Your task to perform on an android device: Open display settings Image 0: 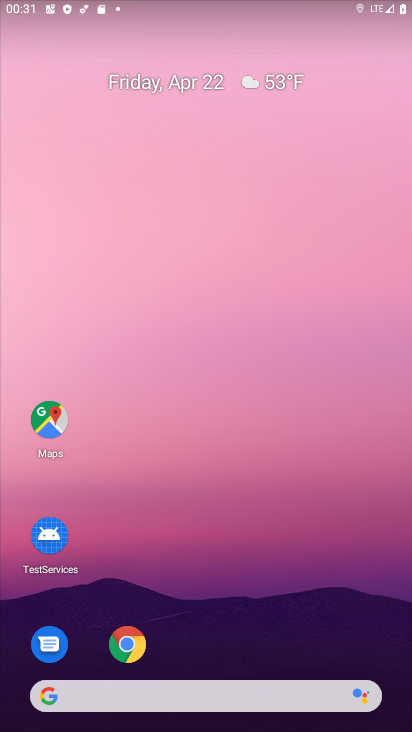
Step 0: drag from (209, 617) to (190, 126)
Your task to perform on an android device: Open display settings Image 1: 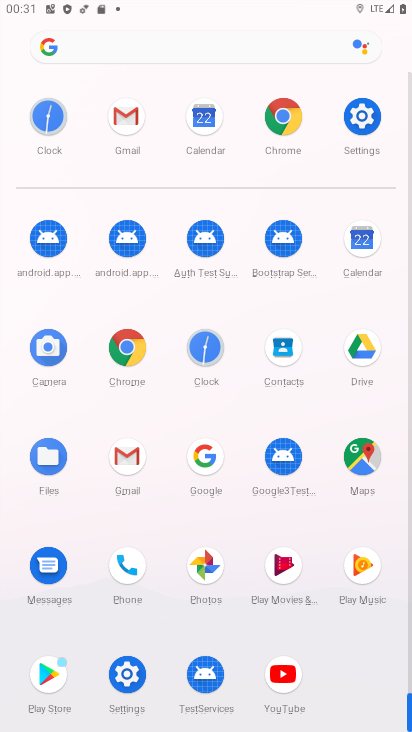
Step 1: click (368, 106)
Your task to perform on an android device: Open display settings Image 2: 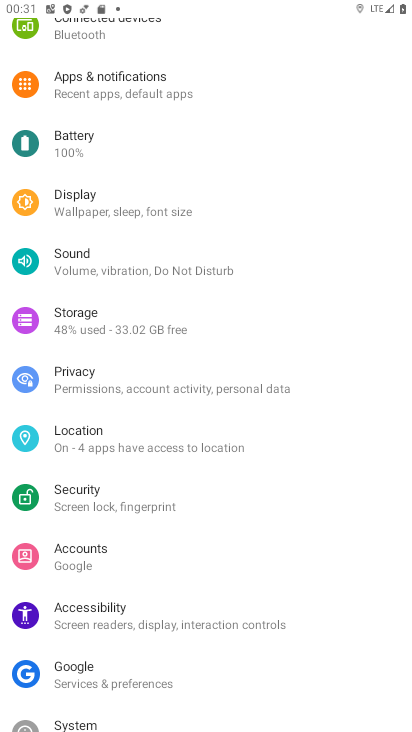
Step 2: drag from (136, 141) to (124, 296)
Your task to perform on an android device: Open display settings Image 3: 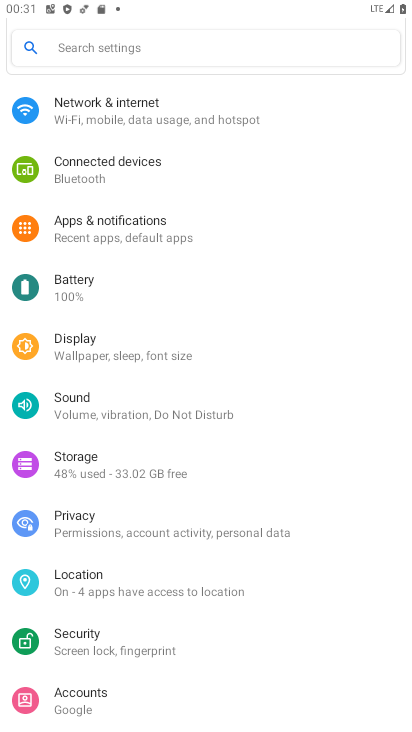
Step 3: click (88, 342)
Your task to perform on an android device: Open display settings Image 4: 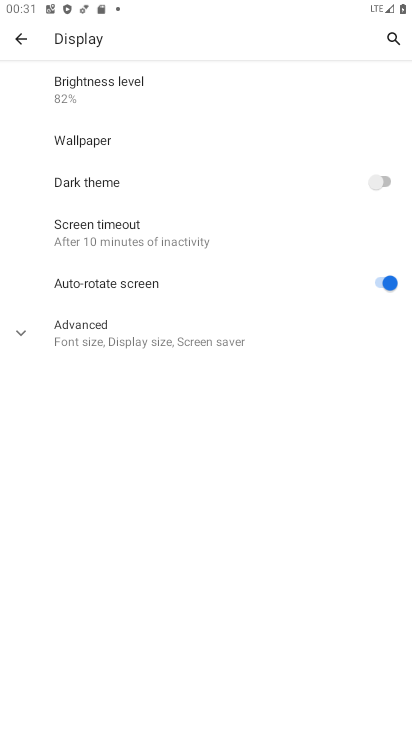
Step 4: task complete